Your task to perform on an android device: Show me recent news Image 0: 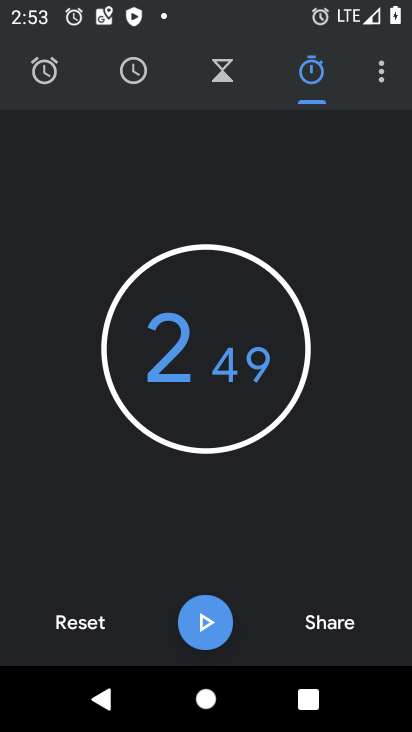
Step 0: press home button
Your task to perform on an android device: Show me recent news Image 1: 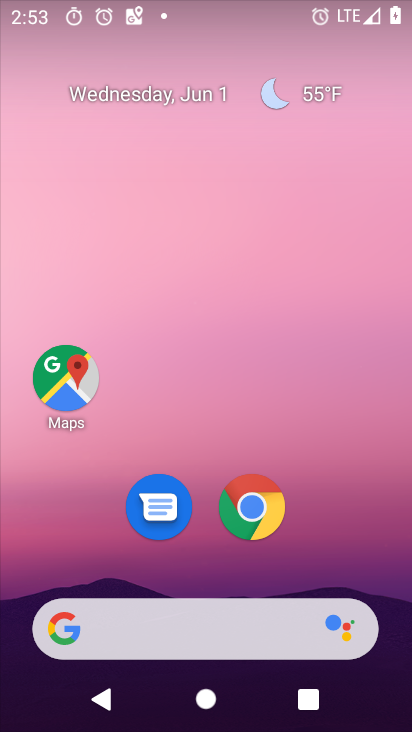
Step 1: click (109, 627)
Your task to perform on an android device: Show me recent news Image 2: 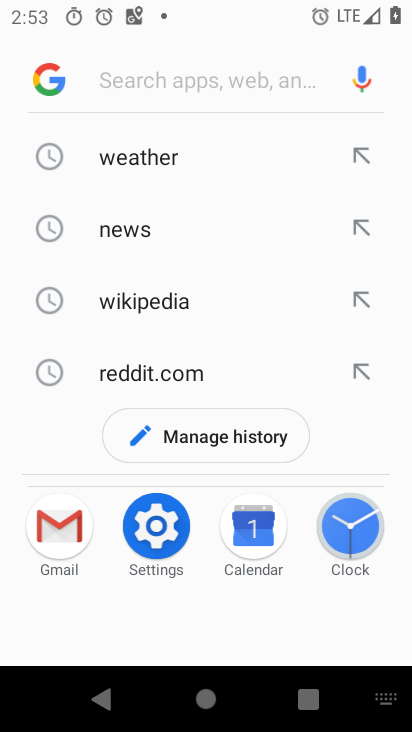
Step 2: type "recent news"
Your task to perform on an android device: Show me recent news Image 3: 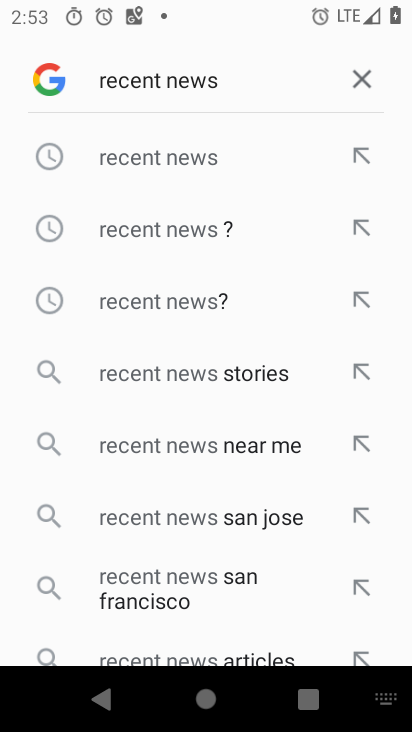
Step 3: click (199, 159)
Your task to perform on an android device: Show me recent news Image 4: 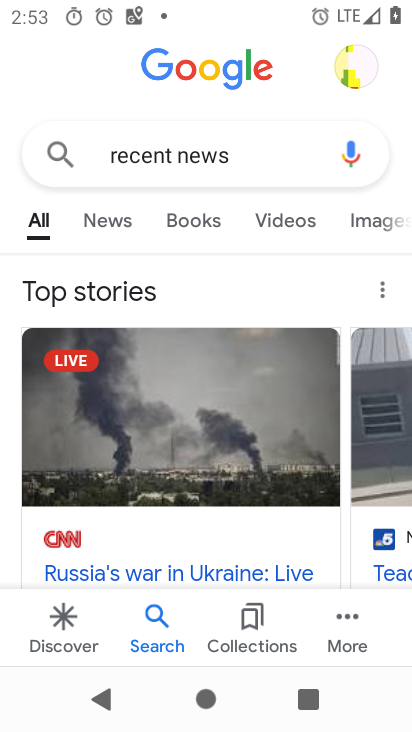
Step 4: click (99, 211)
Your task to perform on an android device: Show me recent news Image 5: 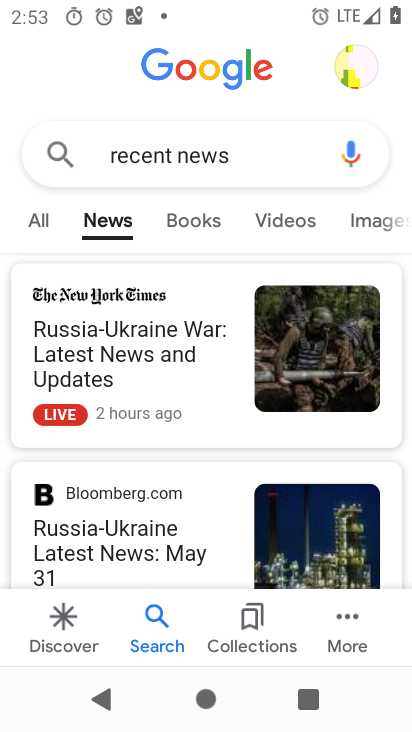
Step 5: drag from (150, 510) to (160, 227)
Your task to perform on an android device: Show me recent news Image 6: 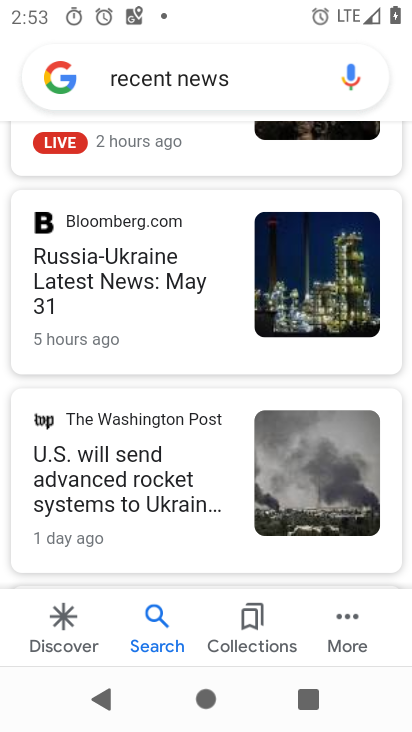
Step 6: drag from (138, 460) to (146, 220)
Your task to perform on an android device: Show me recent news Image 7: 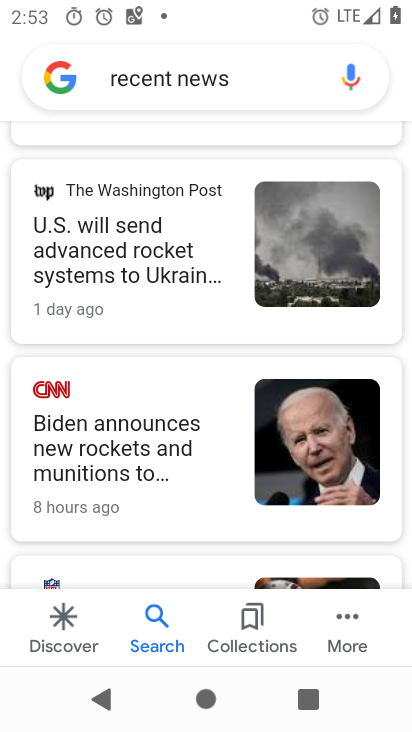
Step 7: drag from (119, 445) to (136, 190)
Your task to perform on an android device: Show me recent news Image 8: 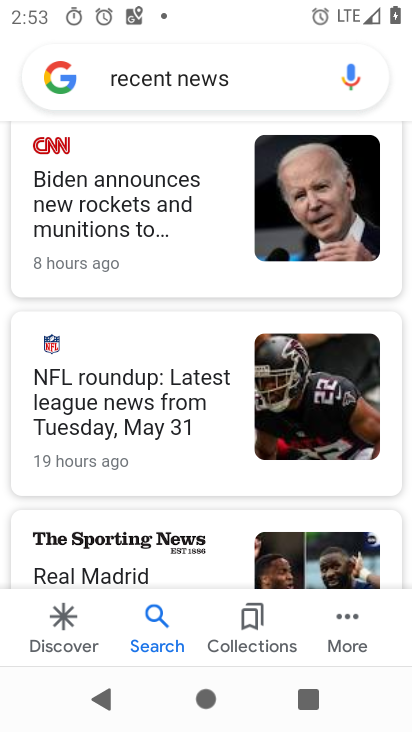
Step 8: drag from (125, 447) to (151, 164)
Your task to perform on an android device: Show me recent news Image 9: 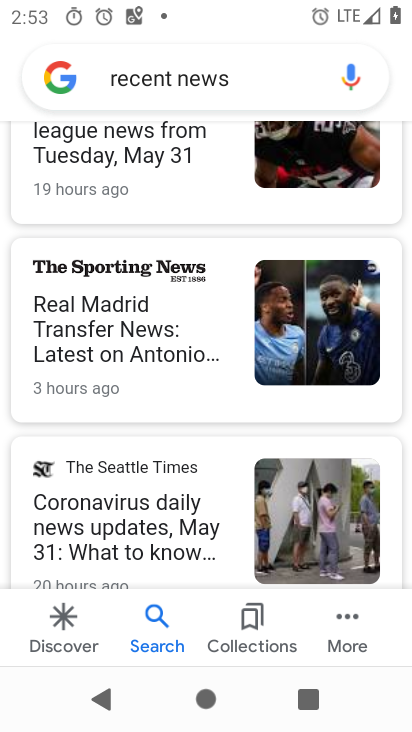
Step 9: drag from (94, 490) to (105, 202)
Your task to perform on an android device: Show me recent news Image 10: 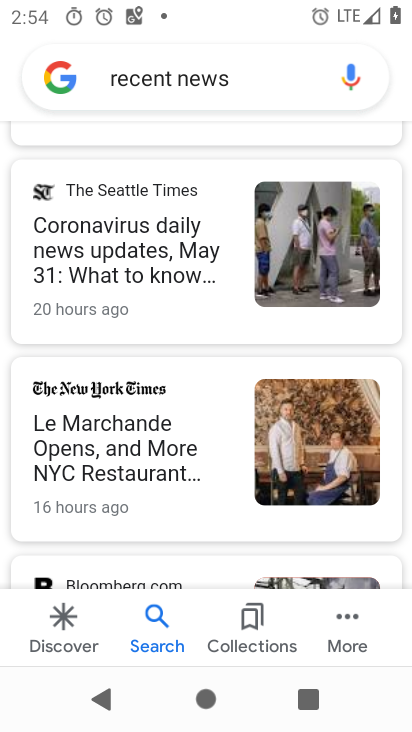
Step 10: drag from (89, 468) to (102, 201)
Your task to perform on an android device: Show me recent news Image 11: 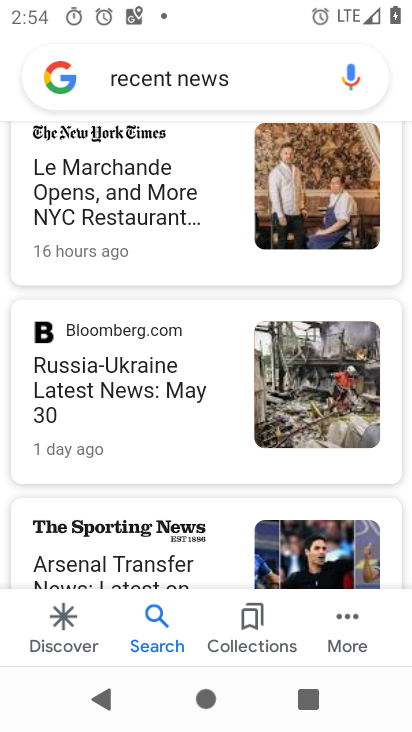
Step 11: drag from (128, 396) to (131, 255)
Your task to perform on an android device: Show me recent news Image 12: 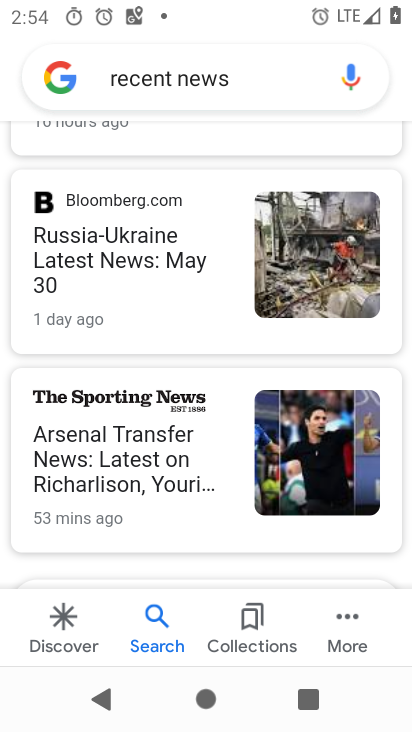
Step 12: click (99, 440)
Your task to perform on an android device: Show me recent news Image 13: 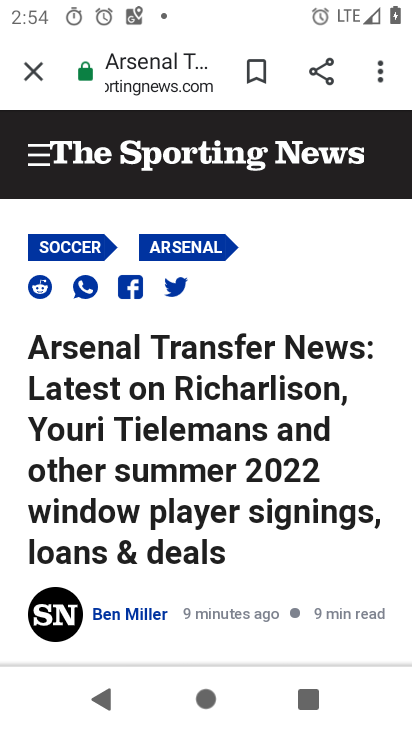
Step 13: task complete